Your task to perform on an android device: Do I have any events today? Image 0: 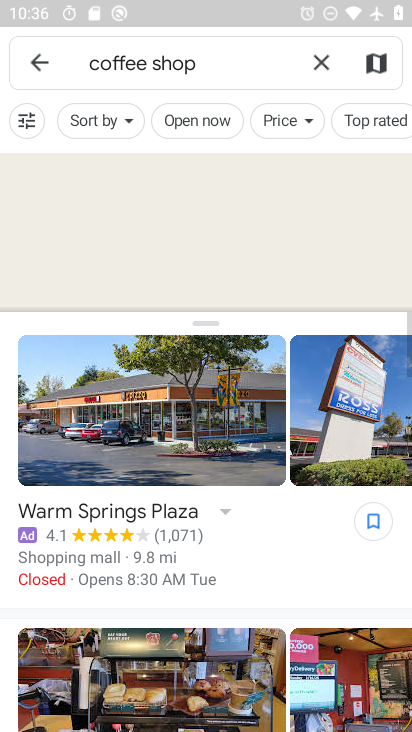
Step 0: press home button
Your task to perform on an android device: Do I have any events today? Image 1: 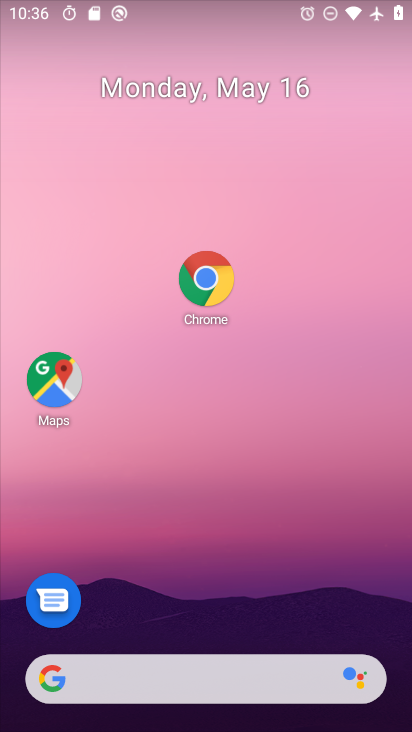
Step 1: drag from (203, 685) to (302, 100)
Your task to perform on an android device: Do I have any events today? Image 2: 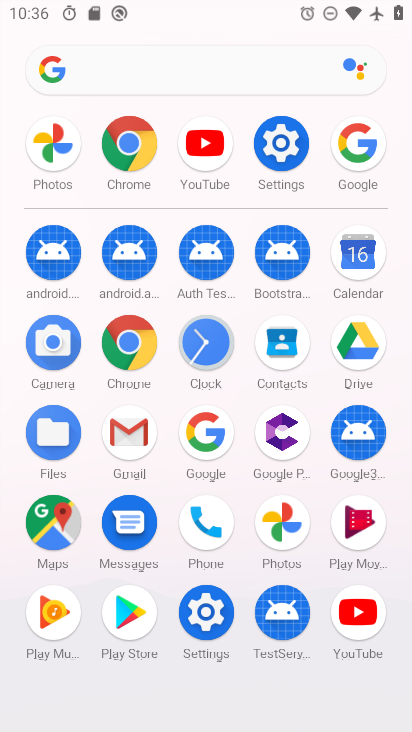
Step 2: click (364, 266)
Your task to perform on an android device: Do I have any events today? Image 3: 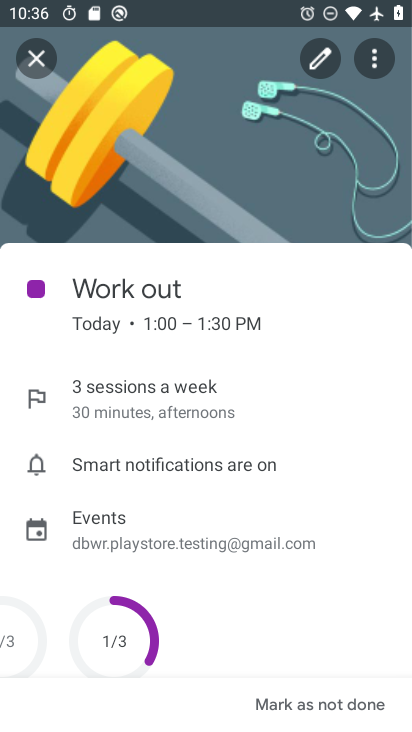
Step 3: click (33, 65)
Your task to perform on an android device: Do I have any events today? Image 4: 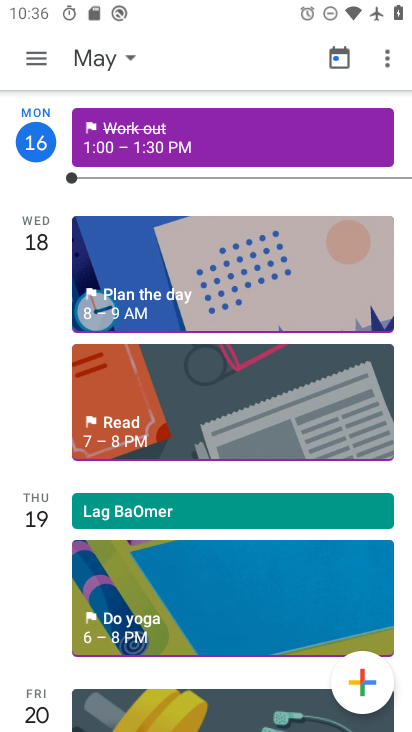
Step 4: click (125, 144)
Your task to perform on an android device: Do I have any events today? Image 5: 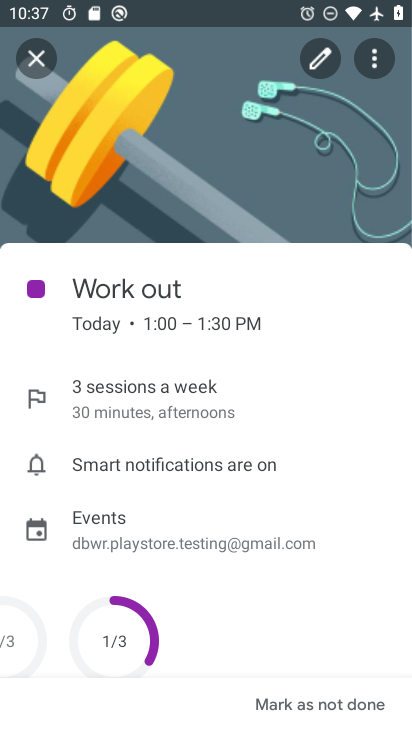
Step 5: task complete